Your task to perform on an android device: Go to notification settings Image 0: 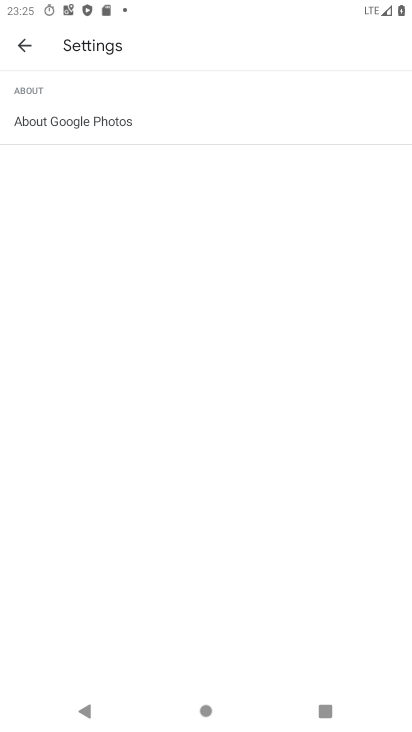
Step 0: press home button
Your task to perform on an android device: Go to notification settings Image 1: 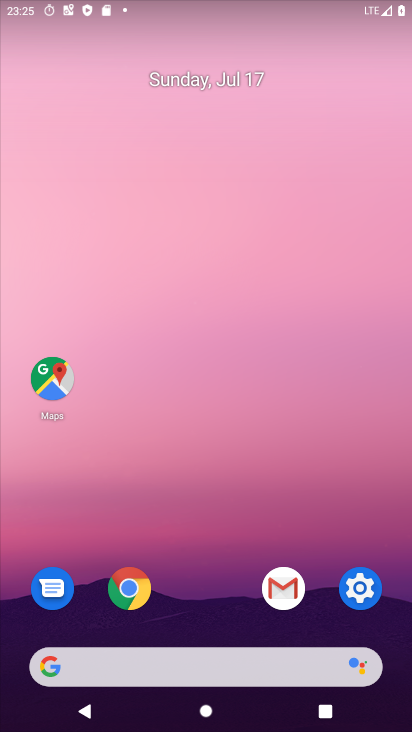
Step 1: click (375, 599)
Your task to perform on an android device: Go to notification settings Image 2: 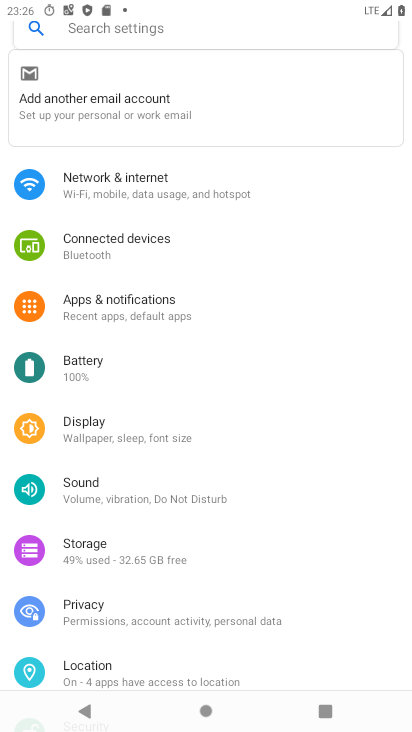
Step 2: click (111, 25)
Your task to perform on an android device: Go to notification settings Image 3: 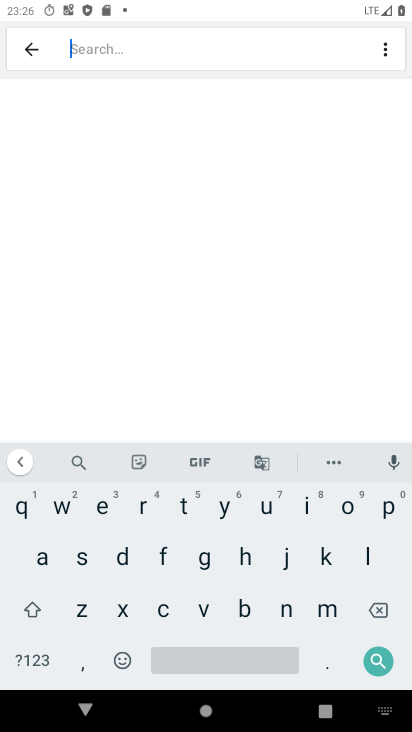
Step 3: click (286, 605)
Your task to perform on an android device: Go to notification settings Image 4: 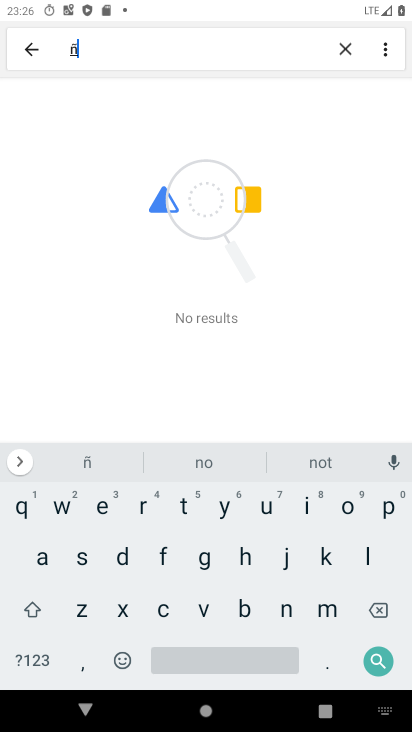
Step 4: click (343, 45)
Your task to perform on an android device: Go to notification settings Image 5: 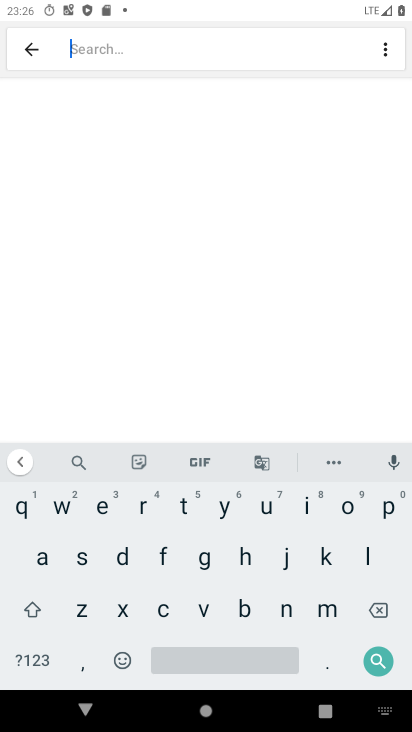
Step 5: click (277, 605)
Your task to perform on an android device: Go to notification settings Image 6: 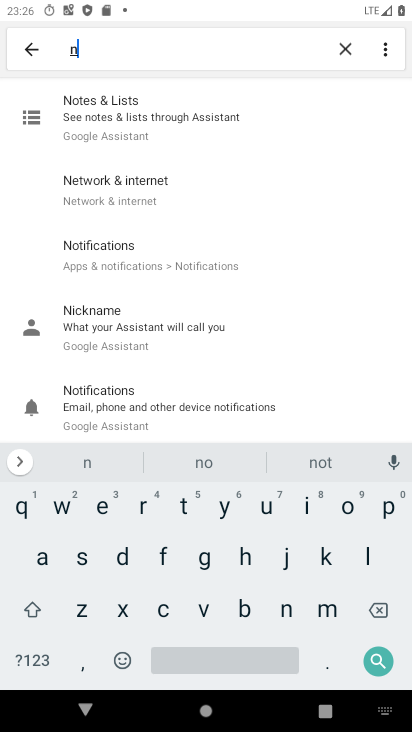
Step 6: click (343, 503)
Your task to perform on an android device: Go to notification settings Image 7: 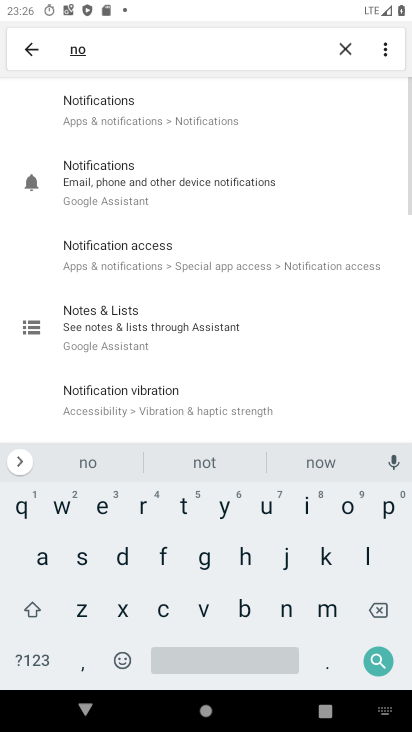
Step 7: click (83, 112)
Your task to perform on an android device: Go to notification settings Image 8: 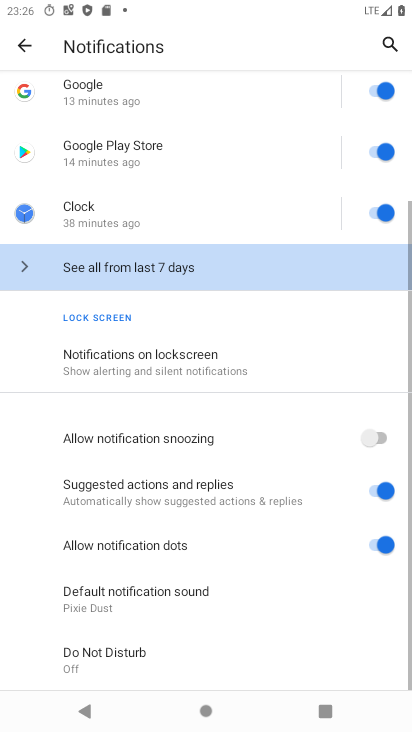
Step 8: click (129, 357)
Your task to perform on an android device: Go to notification settings Image 9: 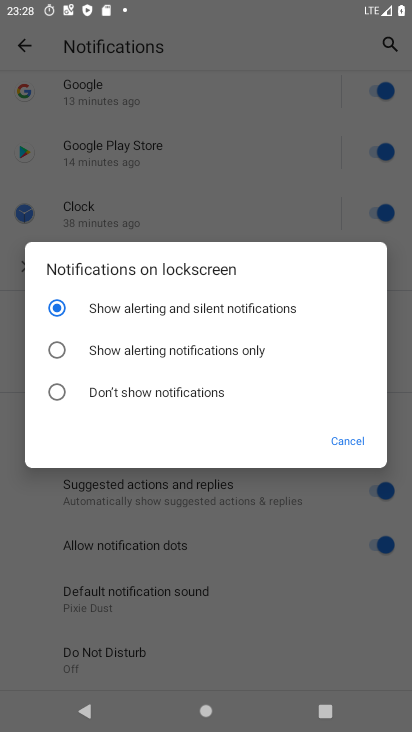
Step 9: task complete